Your task to perform on an android device: turn notification dots off Image 0: 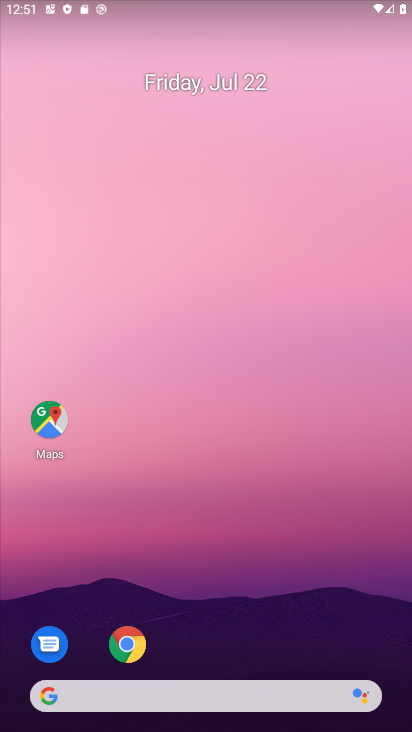
Step 0: drag from (216, 656) to (237, 103)
Your task to perform on an android device: turn notification dots off Image 1: 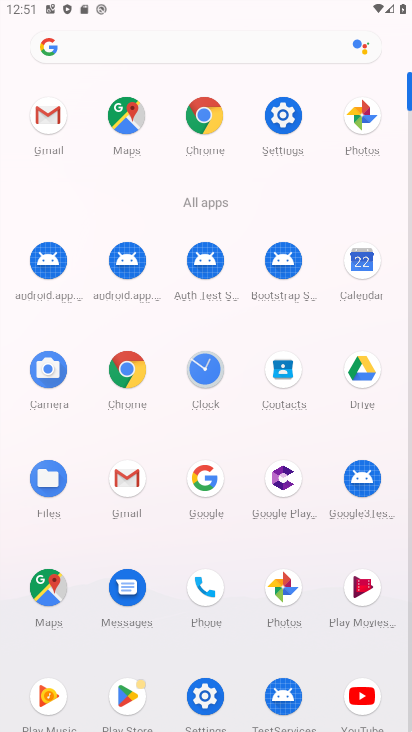
Step 1: click (279, 108)
Your task to perform on an android device: turn notification dots off Image 2: 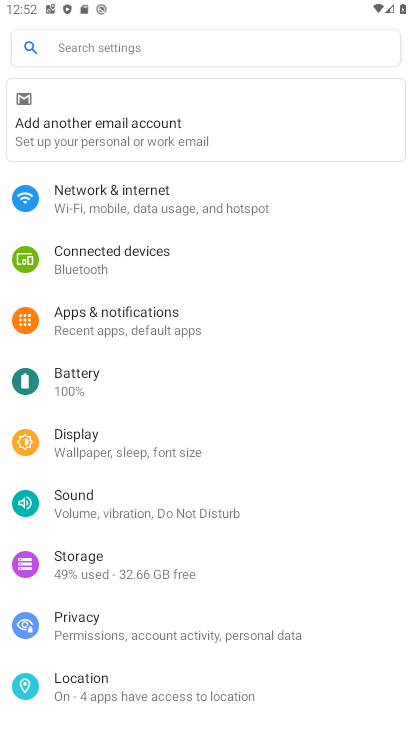
Step 2: click (199, 316)
Your task to perform on an android device: turn notification dots off Image 3: 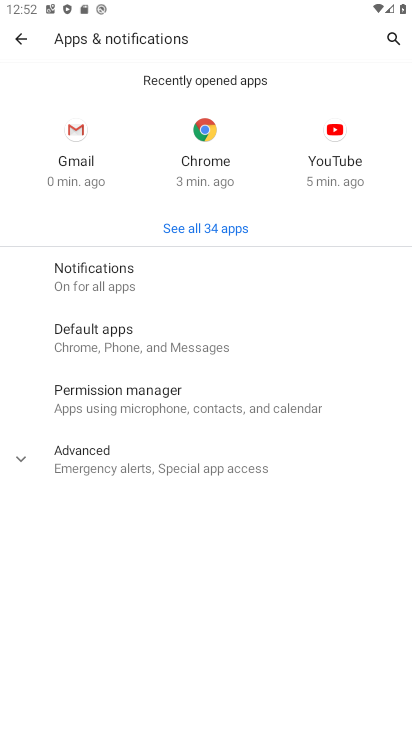
Step 3: click (155, 278)
Your task to perform on an android device: turn notification dots off Image 4: 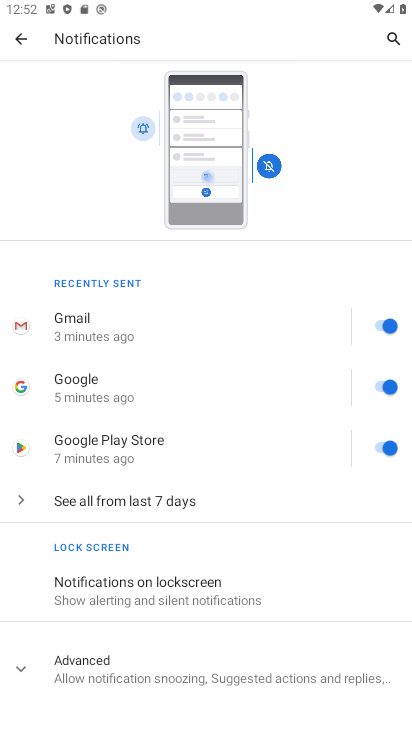
Step 4: click (148, 278)
Your task to perform on an android device: turn notification dots off Image 5: 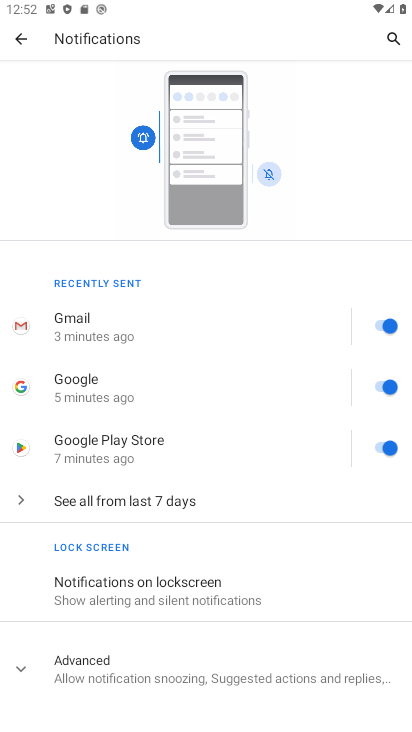
Step 5: click (83, 663)
Your task to perform on an android device: turn notification dots off Image 6: 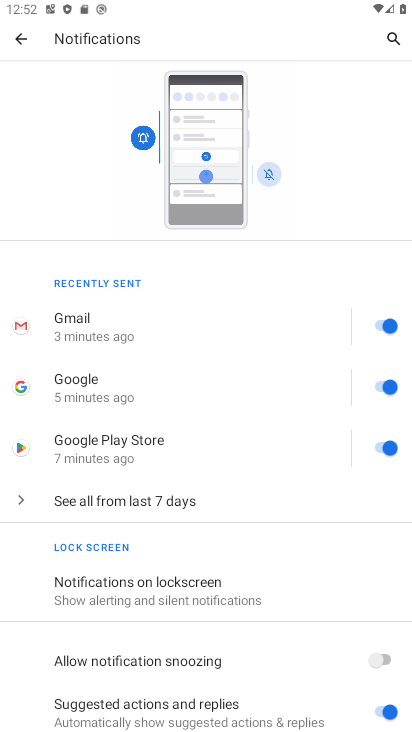
Step 6: drag from (238, 648) to (276, 192)
Your task to perform on an android device: turn notification dots off Image 7: 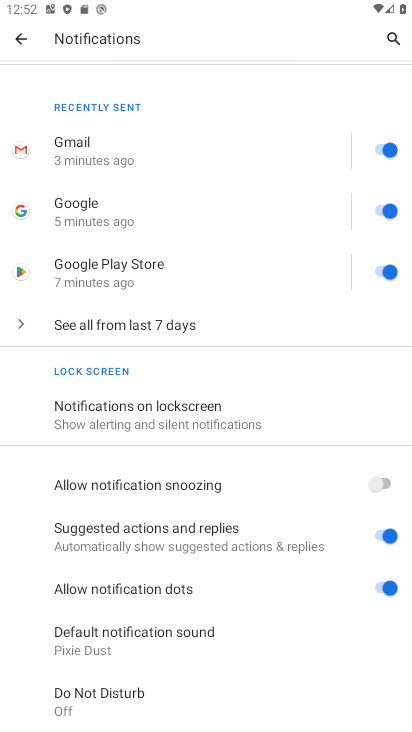
Step 7: click (375, 581)
Your task to perform on an android device: turn notification dots off Image 8: 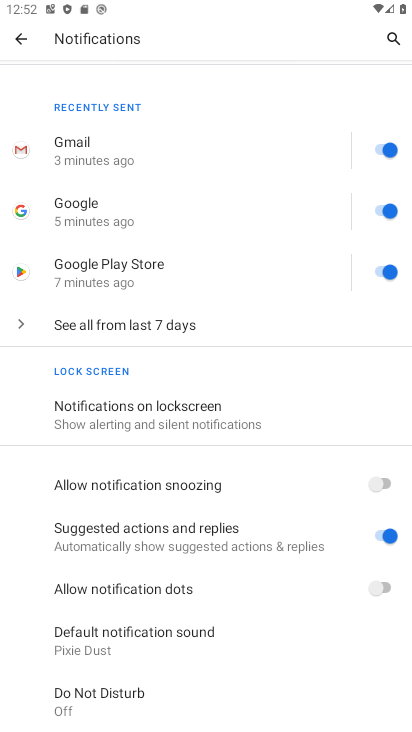
Step 8: task complete